Your task to perform on an android device: turn off wifi Image 0: 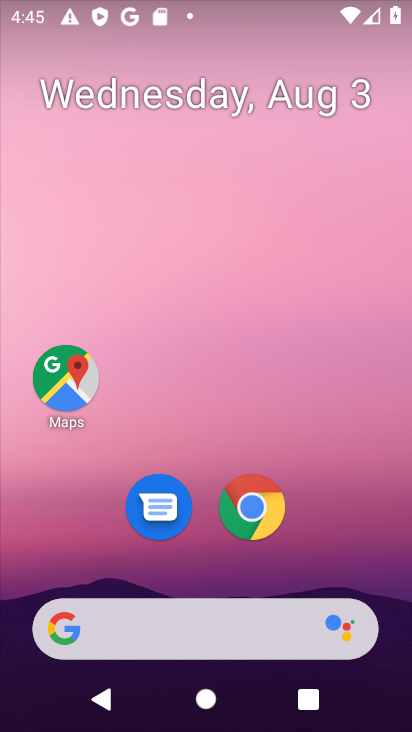
Step 0: drag from (382, 548) to (276, 4)
Your task to perform on an android device: turn off wifi Image 1: 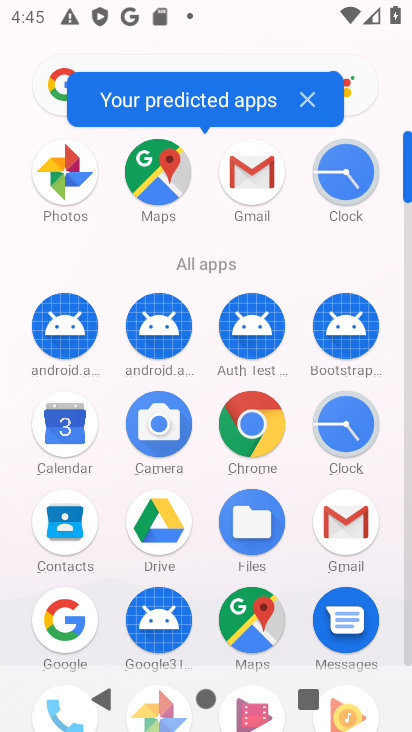
Step 1: drag from (304, 582) to (308, 173)
Your task to perform on an android device: turn off wifi Image 2: 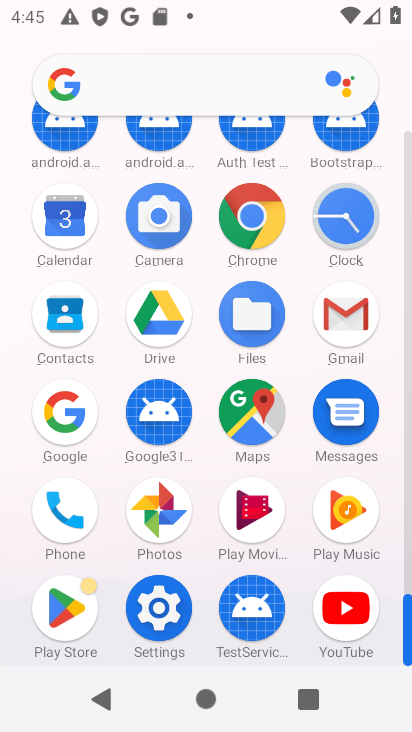
Step 2: click (159, 608)
Your task to perform on an android device: turn off wifi Image 3: 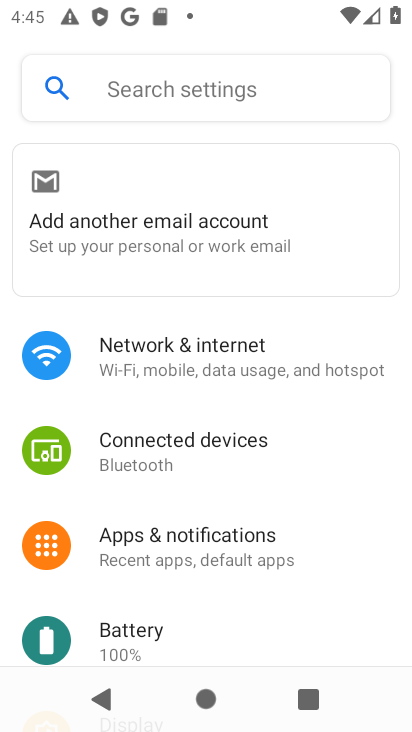
Step 3: click (178, 194)
Your task to perform on an android device: turn off wifi Image 4: 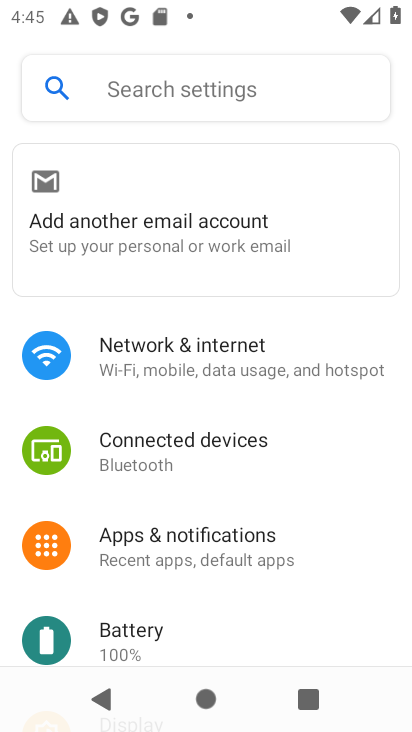
Step 4: press back button
Your task to perform on an android device: turn off wifi Image 5: 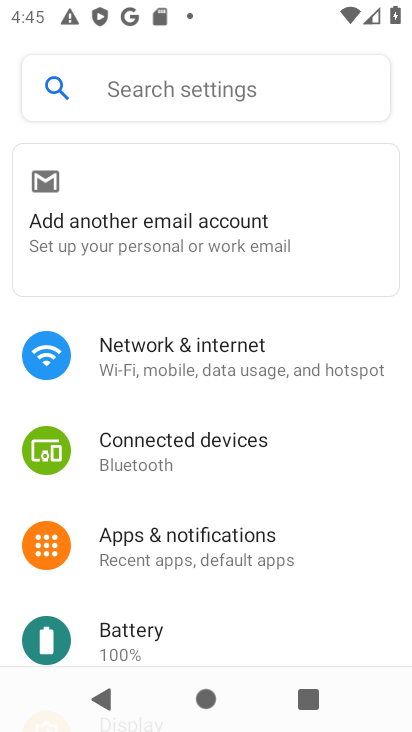
Step 5: click (159, 379)
Your task to perform on an android device: turn off wifi Image 6: 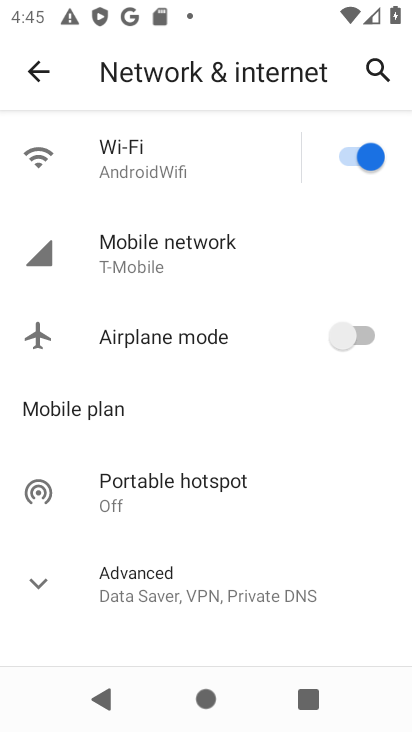
Step 6: click (360, 152)
Your task to perform on an android device: turn off wifi Image 7: 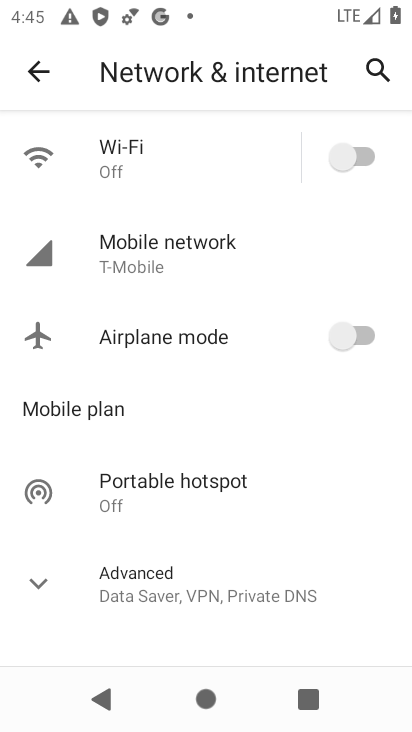
Step 7: task complete